Your task to perform on an android device: change the clock style Image 0: 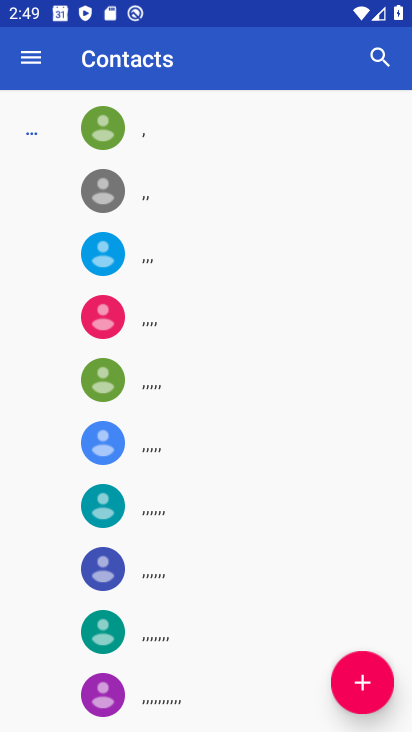
Step 0: press home button
Your task to perform on an android device: change the clock style Image 1: 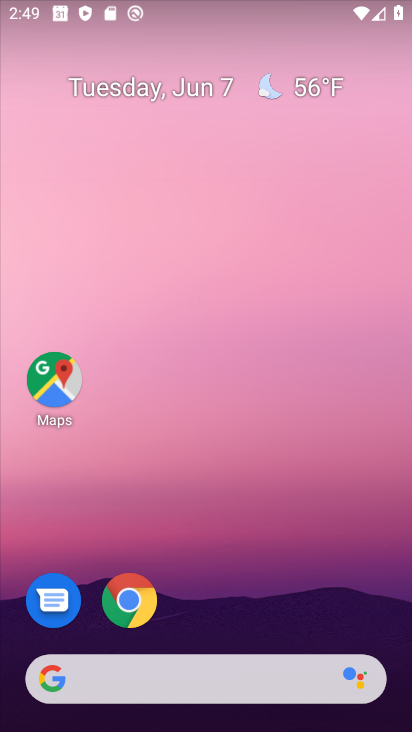
Step 1: drag from (405, 690) to (383, 98)
Your task to perform on an android device: change the clock style Image 2: 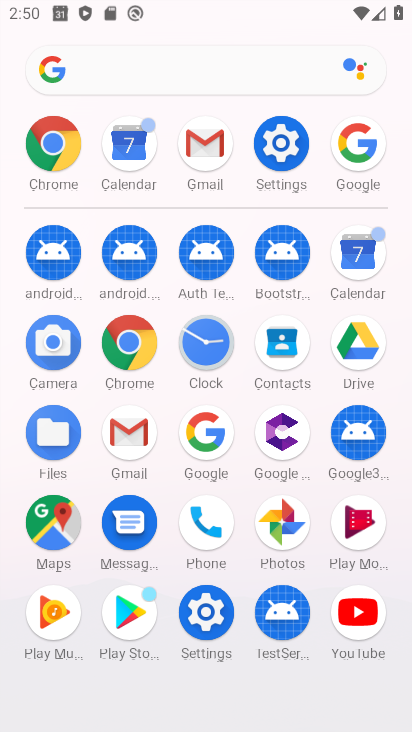
Step 2: click (203, 345)
Your task to perform on an android device: change the clock style Image 3: 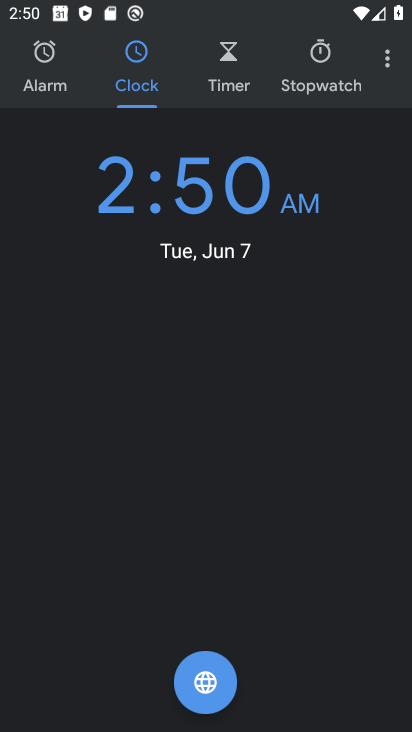
Step 3: click (382, 49)
Your task to perform on an android device: change the clock style Image 4: 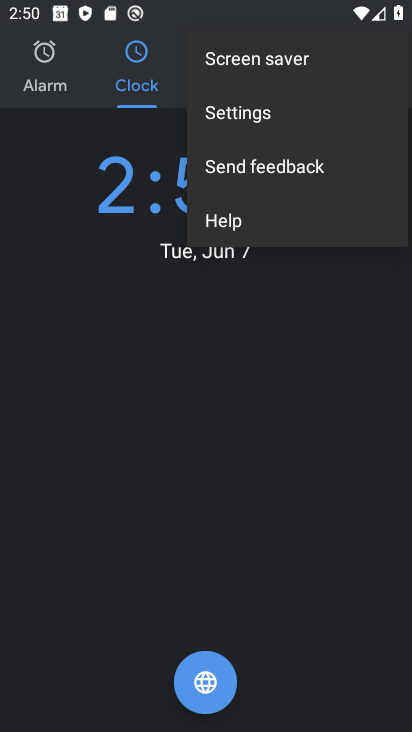
Step 4: click (242, 99)
Your task to perform on an android device: change the clock style Image 5: 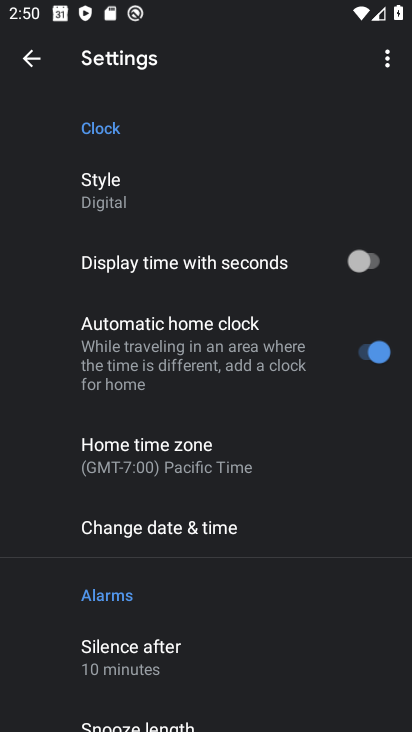
Step 5: click (111, 190)
Your task to perform on an android device: change the clock style Image 6: 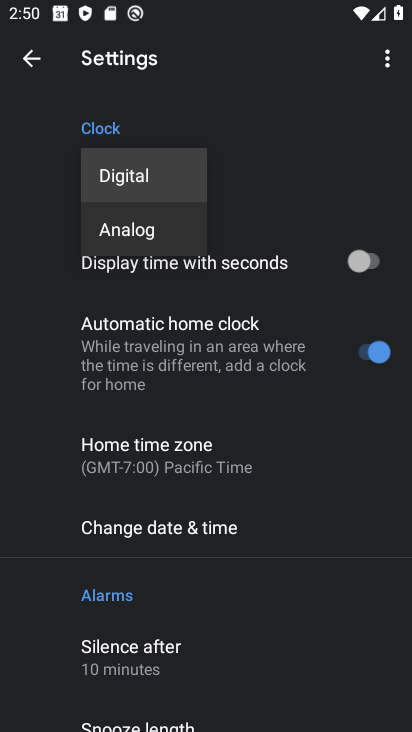
Step 6: click (143, 235)
Your task to perform on an android device: change the clock style Image 7: 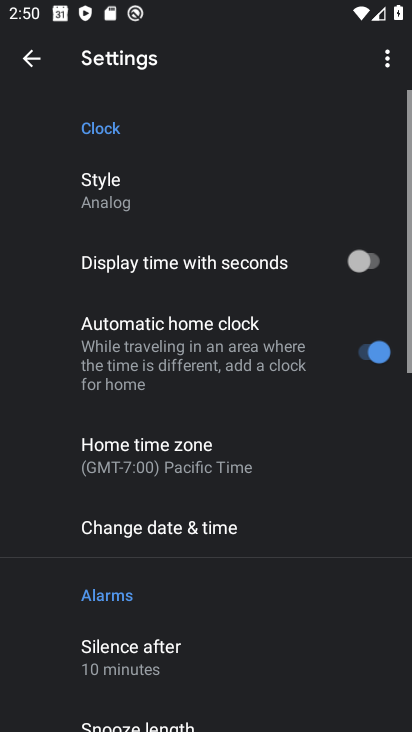
Step 7: task complete